Your task to perform on an android device: toggle pop-ups in chrome Image 0: 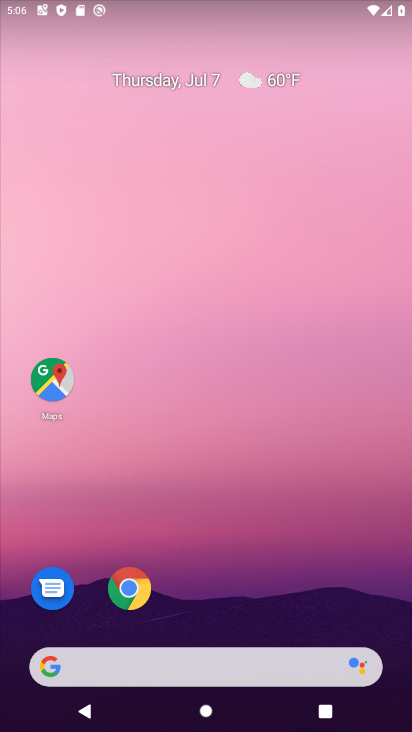
Step 0: click (122, 586)
Your task to perform on an android device: toggle pop-ups in chrome Image 1: 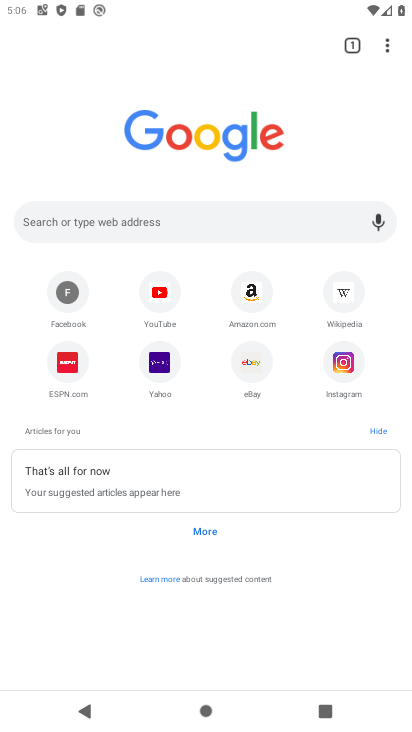
Step 1: drag from (388, 47) to (224, 380)
Your task to perform on an android device: toggle pop-ups in chrome Image 2: 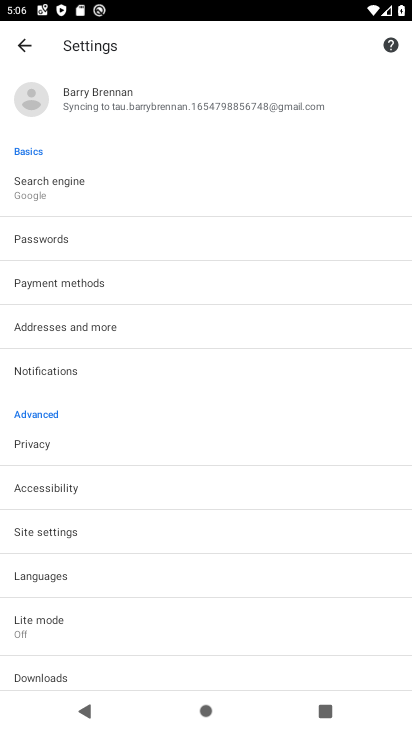
Step 2: click (59, 536)
Your task to perform on an android device: toggle pop-ups in chrome Image 3: 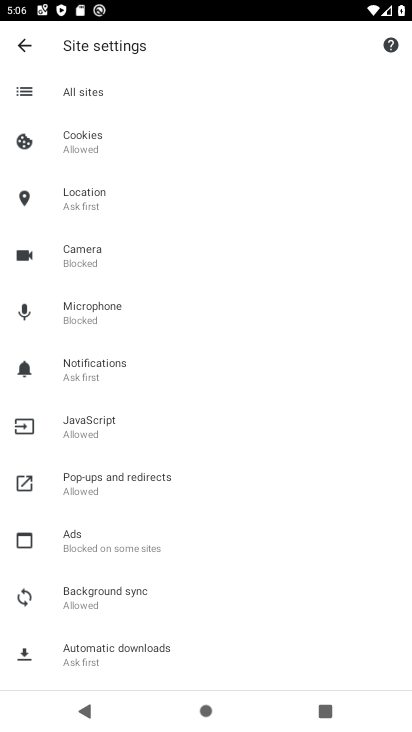
Step 3: click (109, 469)
Your task to perform on an android device: toggle pop-ups in chrome Image 4: 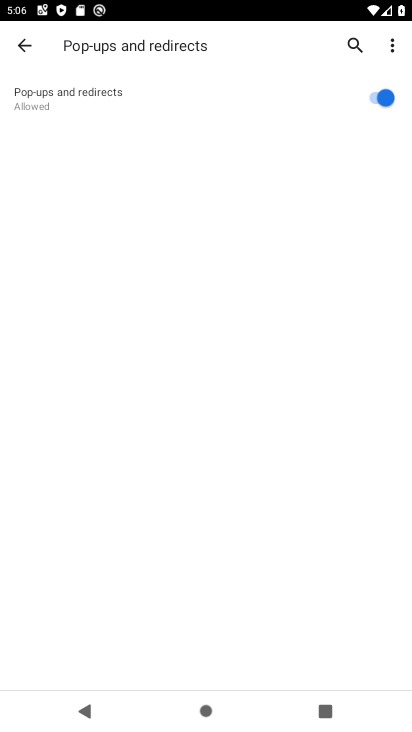
Step 4: task complete